Your task to perform on an android device: Toggle the flashlight Image 0: 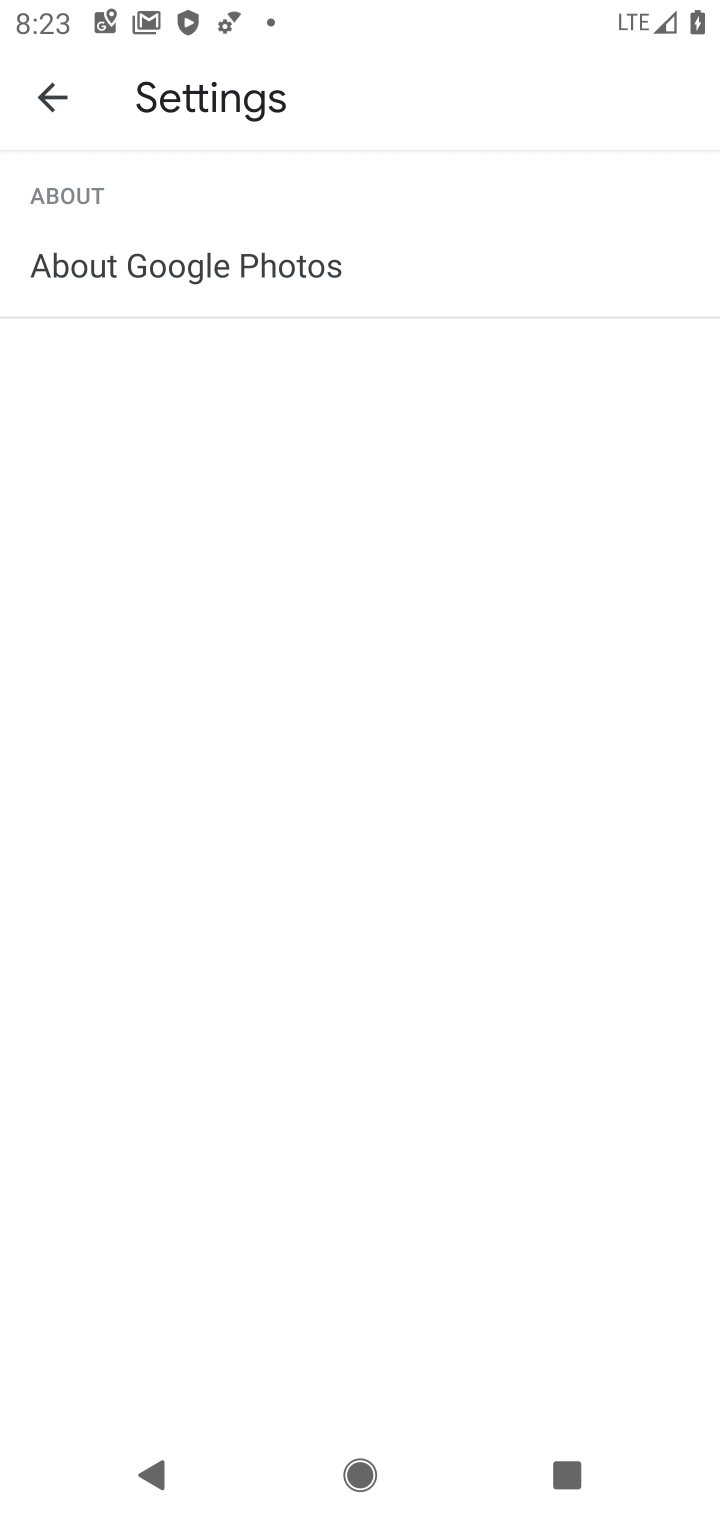
Step 0: press home button
Your task to perform on an android device: Toggle the flashlight Image 1: 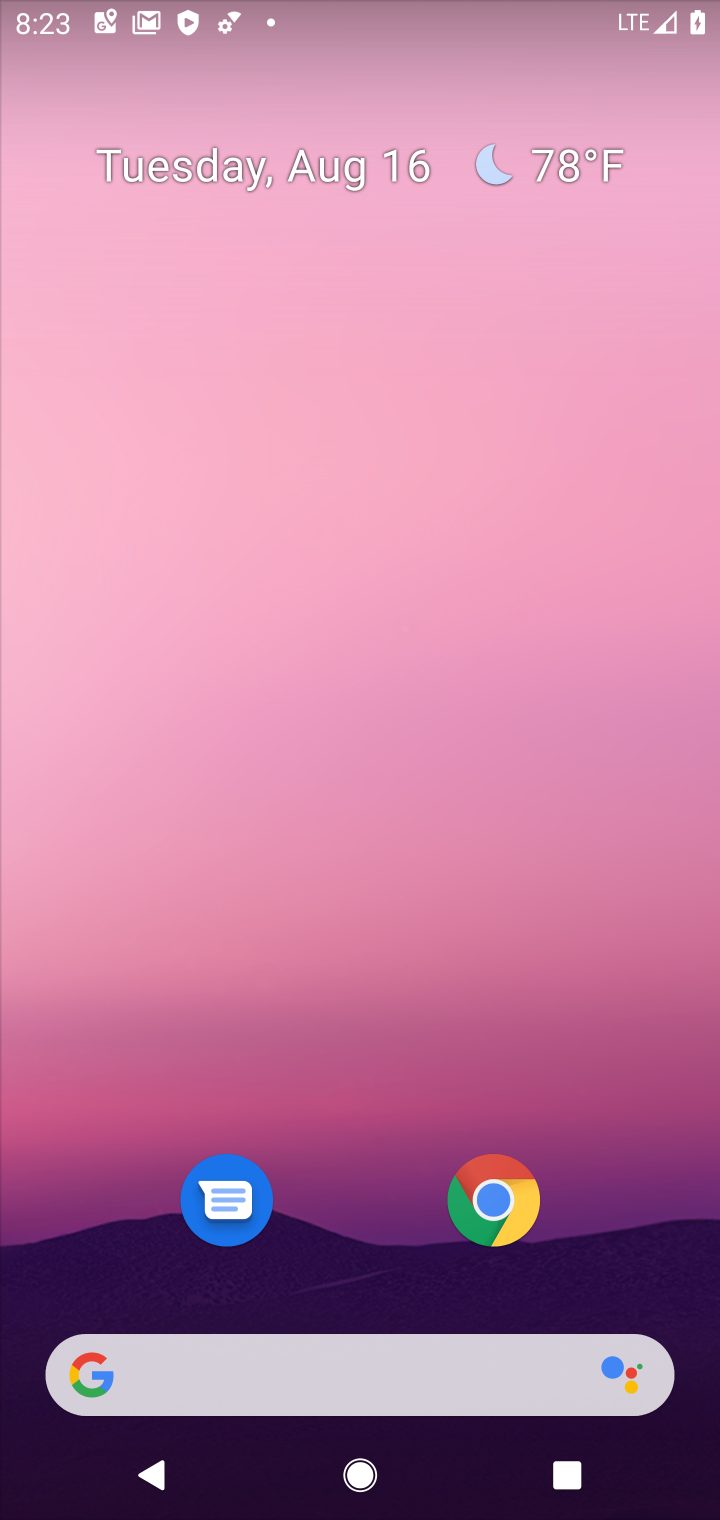
Step 1: drag from (381, 28) to (397, 1387)
Your task to perform on an android device: Toggle the flashlight Image 2: 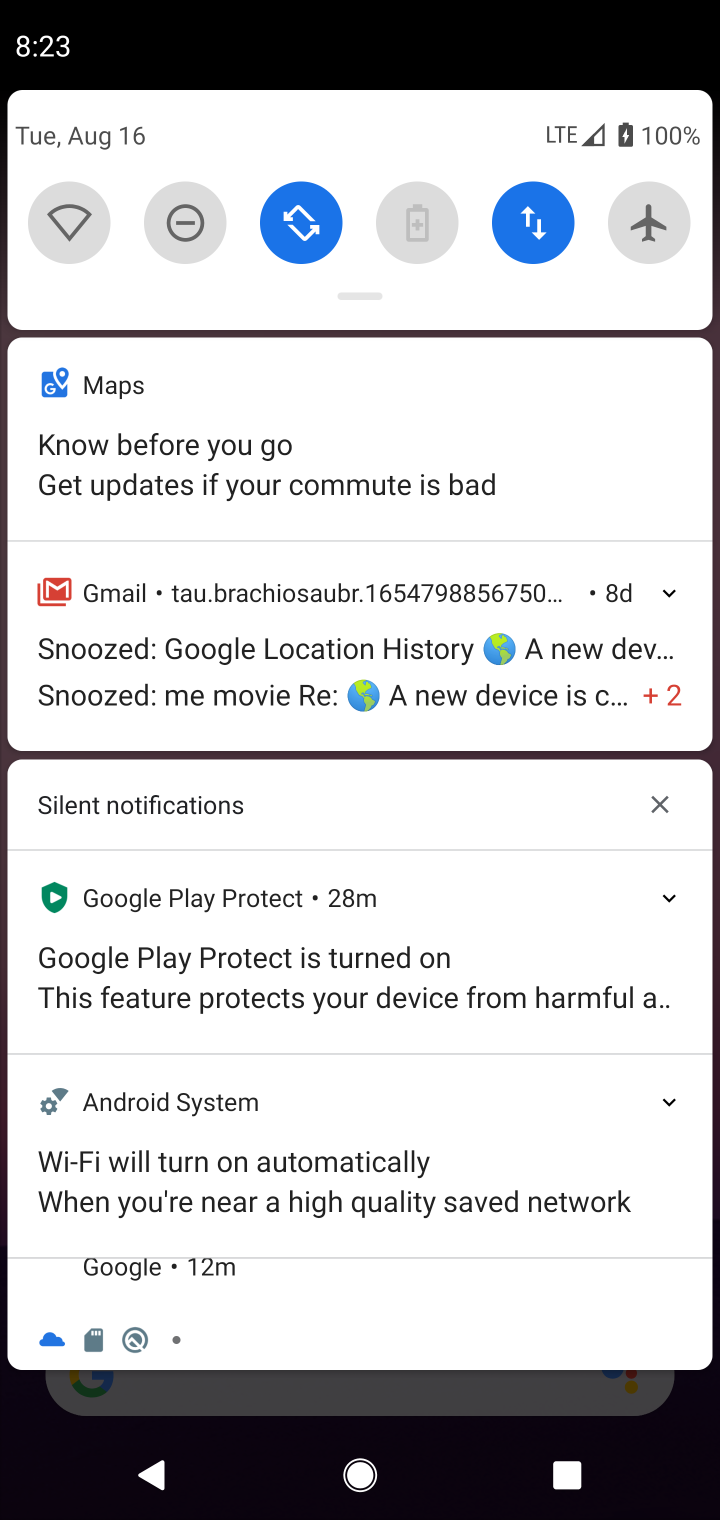
Step 2: drag from (348, 295) to (303, 961)
Your task to perform on an android device: Toggle the flashlight Image 3: 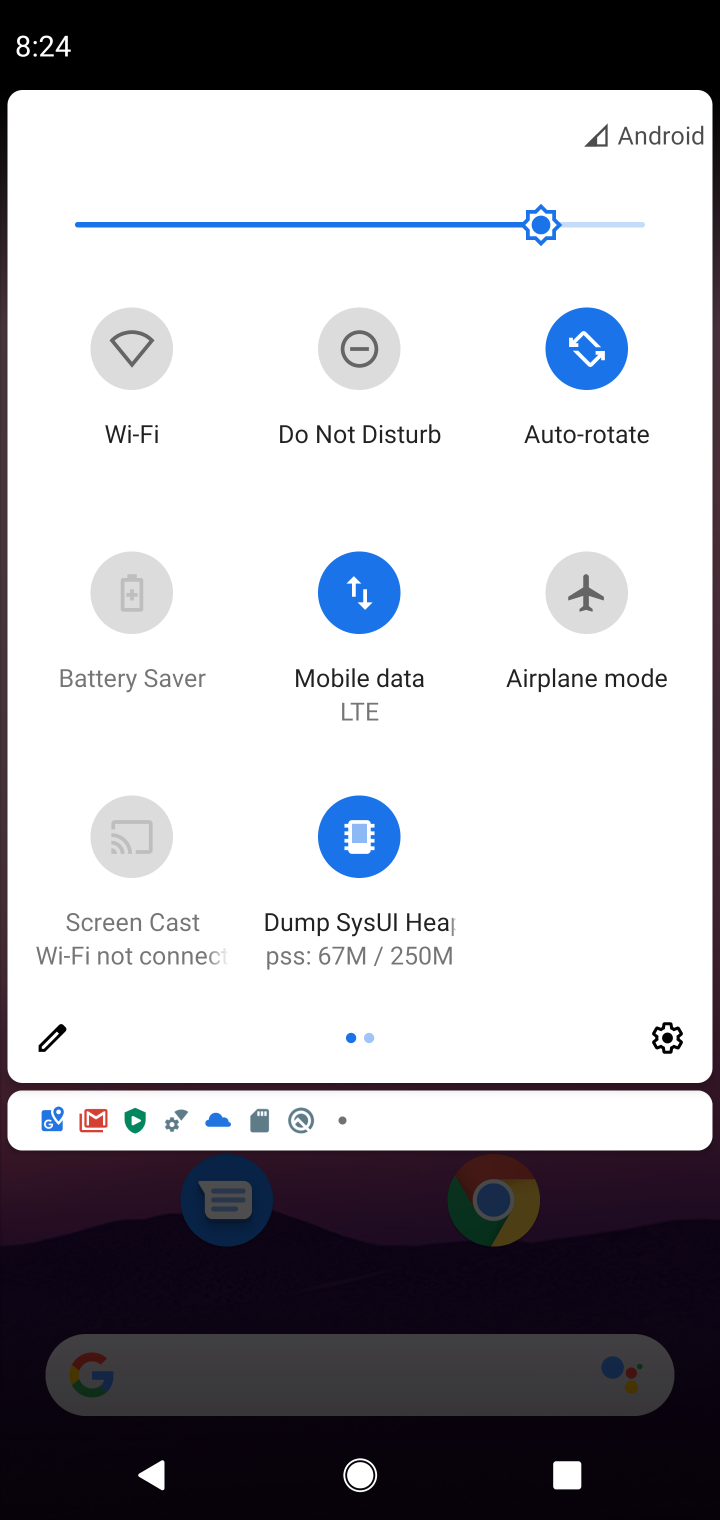
Step 3: click (55, 1035)
Your task to perform on an android device: Toggle the flashlight Image 4: 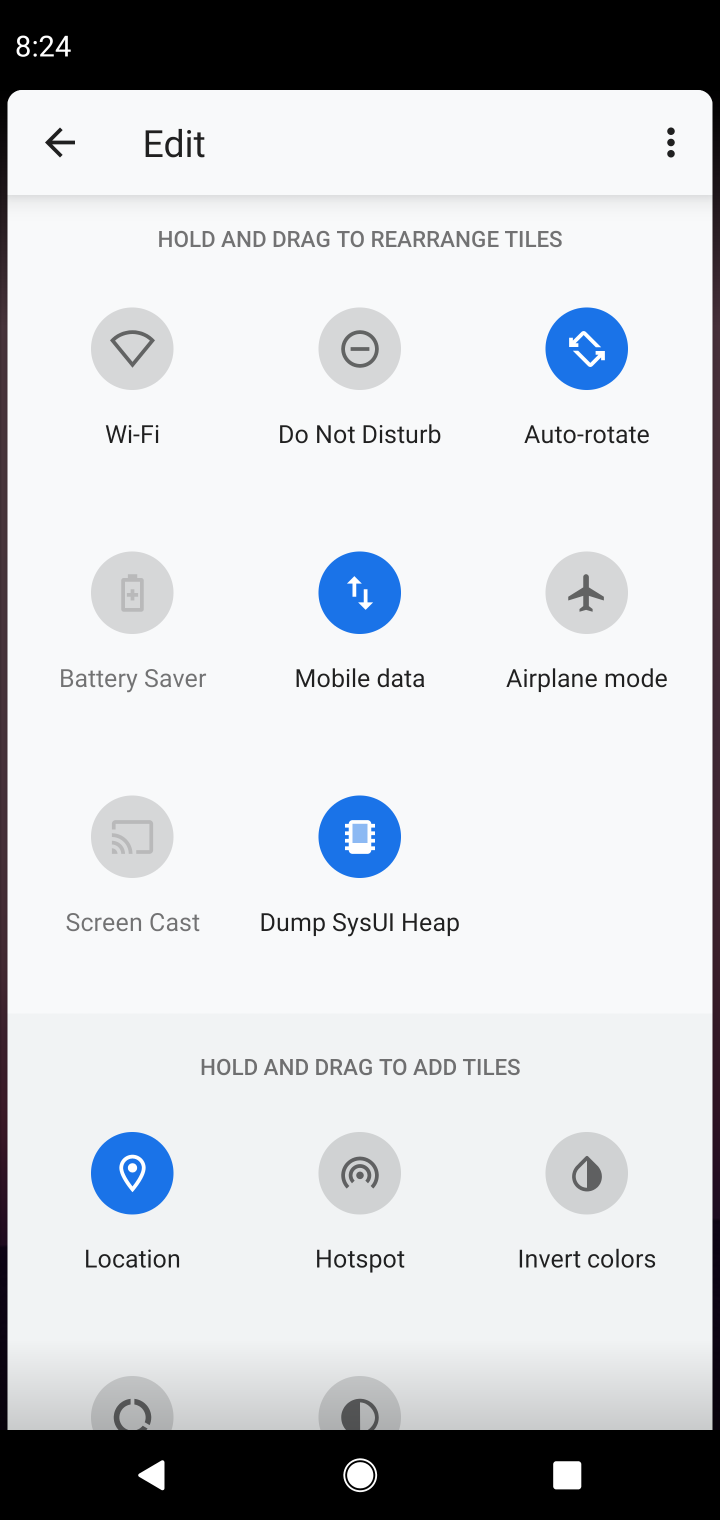
Step 4: task complete